Your task to perform on an android device: Go to CNN.com Image 0: 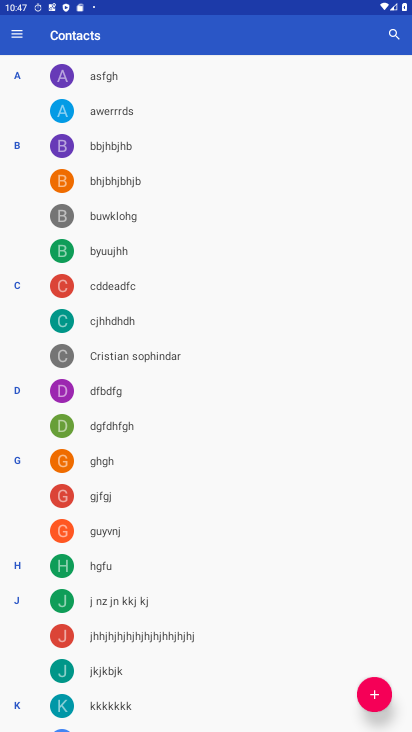
Step 0: press home button
Your task to perform on an android device: Go to CNN.com Image 1: 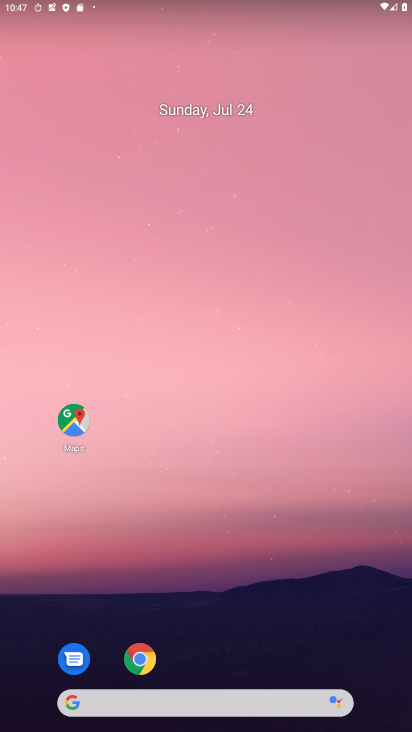
Step 1: click (142, 658)
Your task to perform on an android device: Go to CNN.com Image 2: 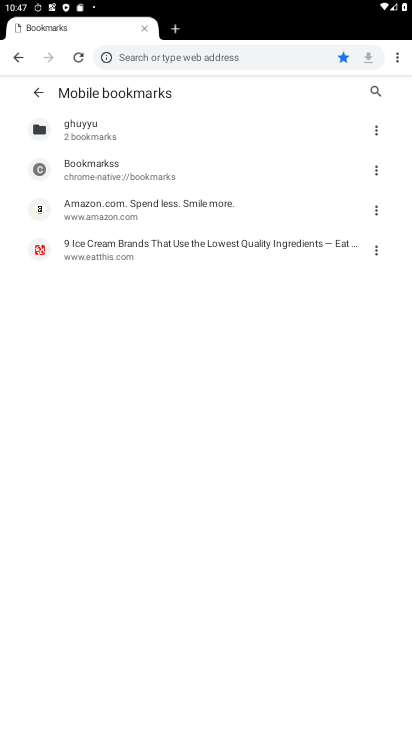
Step 2: click (236, 55)
Your task to perform on an android device: Go to CNN.com Image 3: 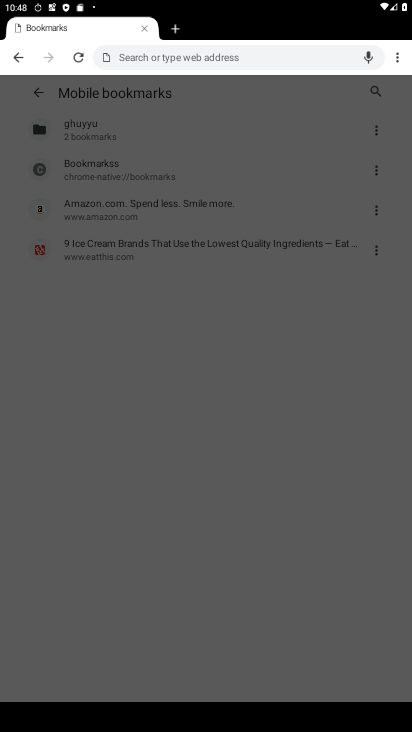
Step 3: type "CNN.com"
Your task to perform on an android device: Go to CNN.com Image 4: 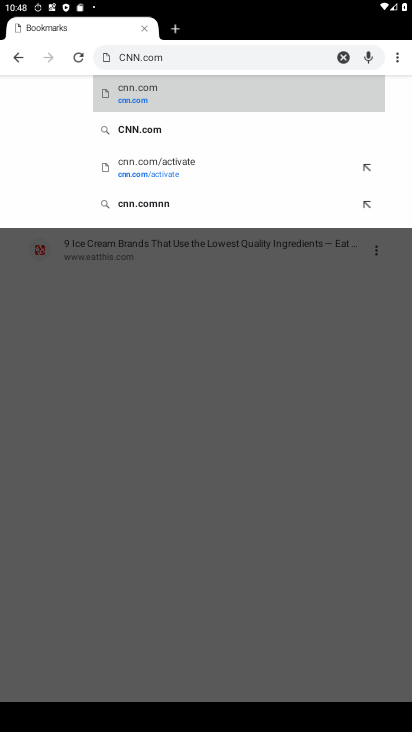
Step 4: click (132, 136)
Your task to perform on an android device: Go to CNN.com Image 5: 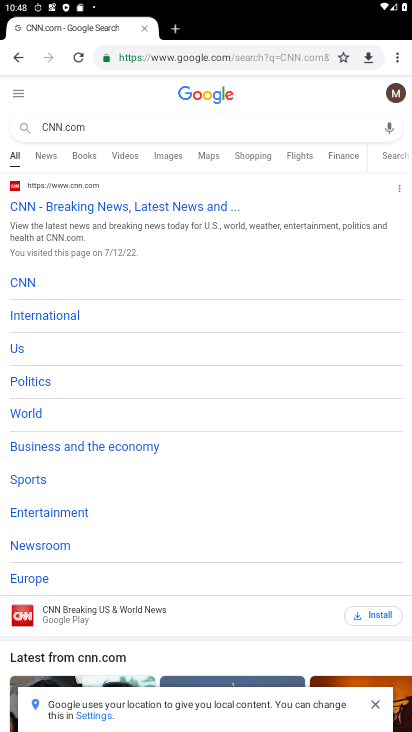
Step 5: click (107, 205)
Your task to perform on an android device: Go to CNN.com Image 6: 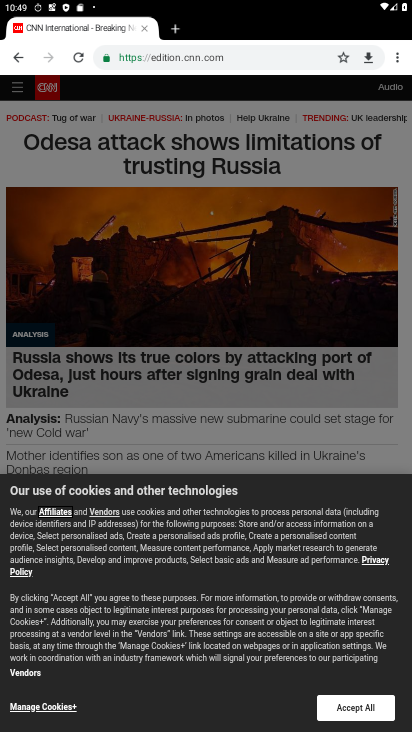
Step 6: task complete